Your task to perform on an android device: Open calendar and show me the second week of next month Image 0: 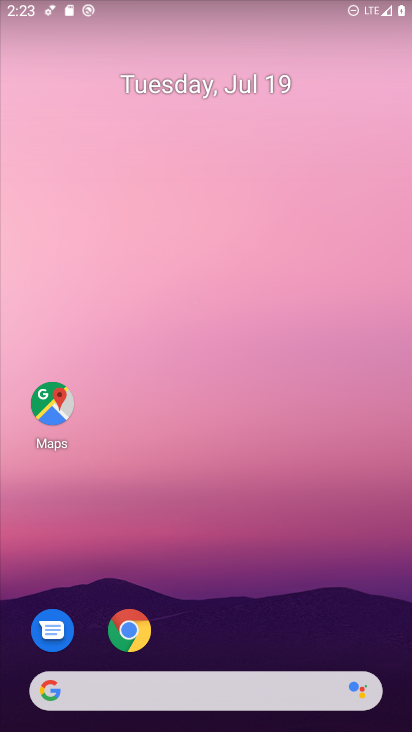
Step 0: drag from (351, 633) to (352, 278)
Your task to perform on an android device: Open calendar and show me the second week of next month Image 1: 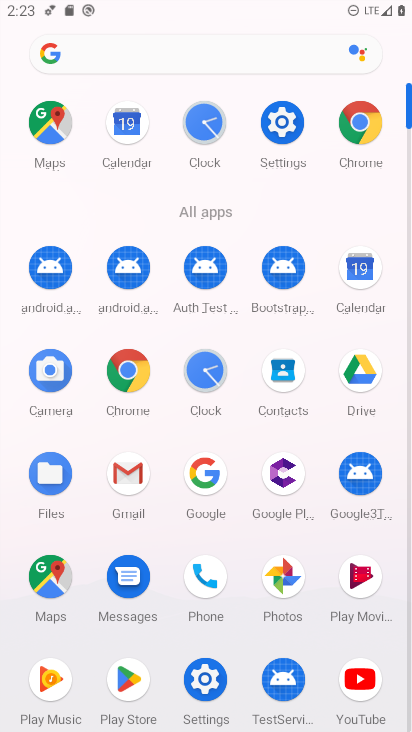
Step 1: click (359, 267)
Your task to perform on an android device: Open calendar and show me the second week of next month Image 2: 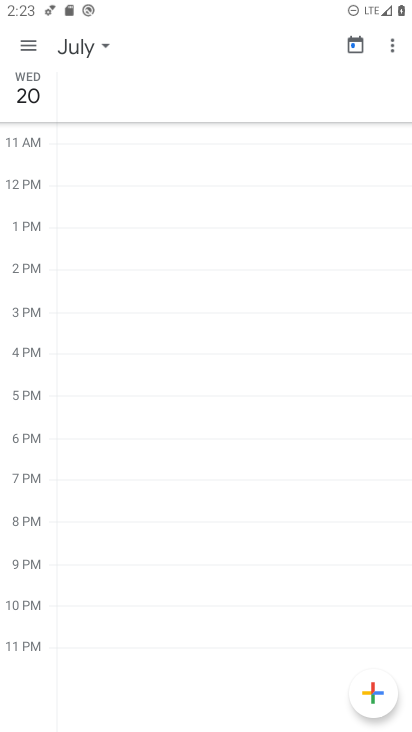
Step 2: click (26, 49)
Your task to perform on an android device: Open calendar and show me the second week of next month Image 3: 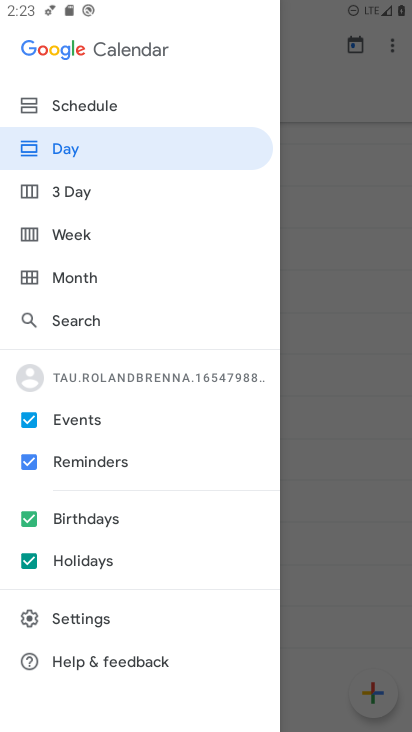
Step 3: click (65, 225)
Your task to perform on an android device: Open calendar and show me the second week of next month Image 4: 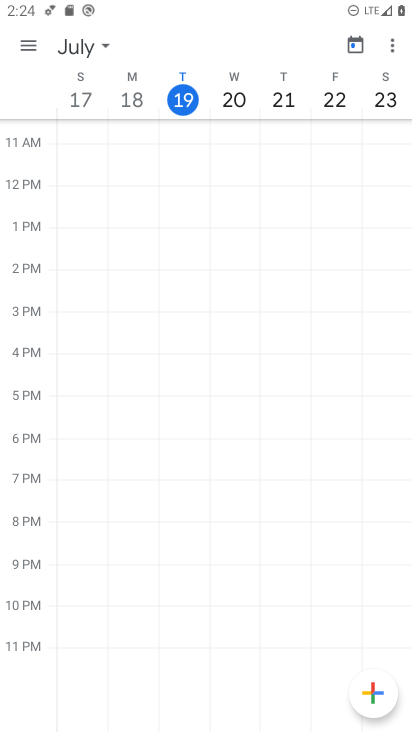
Step 4: click (95, 44)
Your task to perform on an android device: Open calendar and show me the second week of next month Image 5: 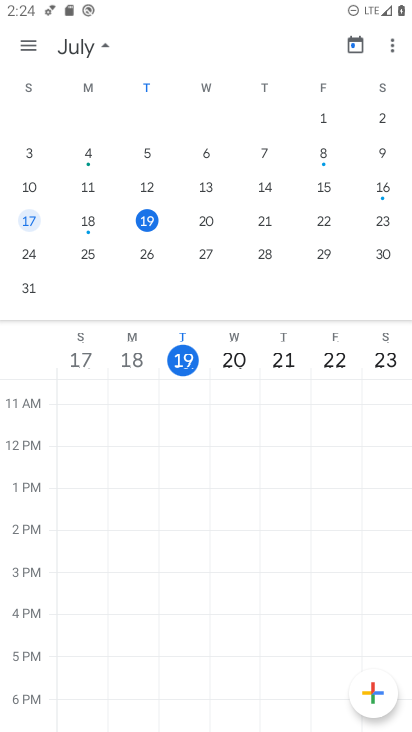
Step 5: drag from (383, 207) to (22, 170)
Your task to perform on an android device: Open calendar and show me the second week of next month Image 6: 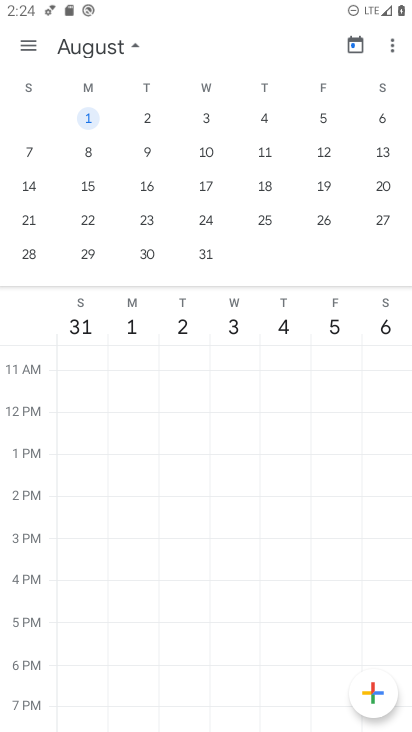
Step 6: click (24, 183)
Your task to perform on an android device: Open calendar and show me the second week of next month Image 7: 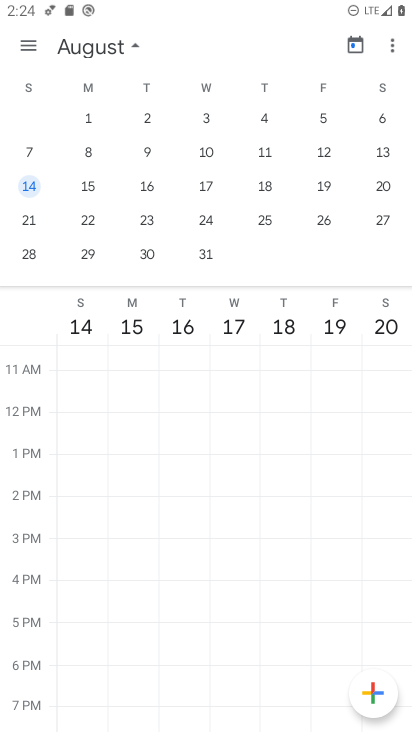
Step 7: task complete